Your task to perform on an android device: turn vacation reply on in the gmail app Image 0: 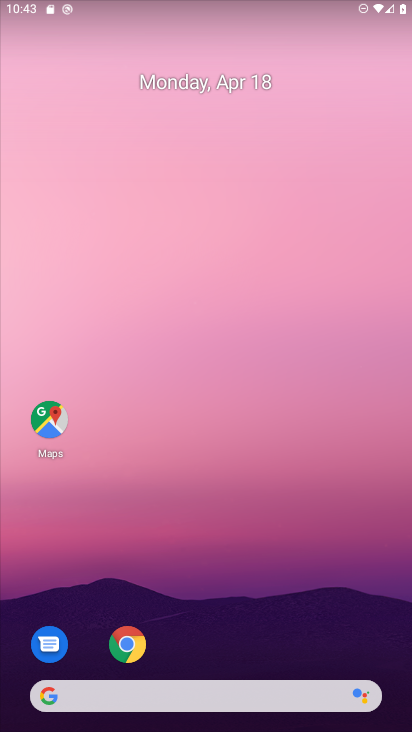
Step 0: drag from (185, 553) to (200, 30)
Your task to perform on an android device: turn vacation reply on in the gmail app Image 1: 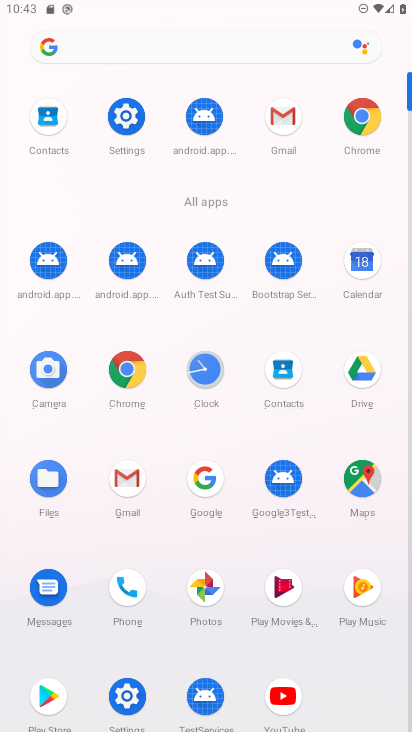
Step 1: click (121, 482)
Your task to perform on an android device: turn vacation reply on in the gmail app Image 2: 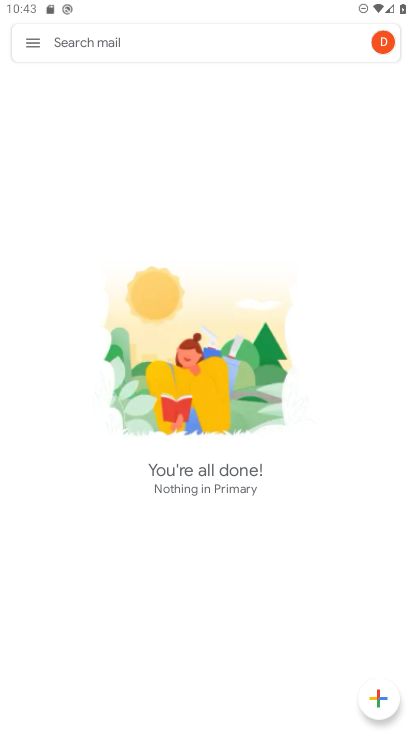
Step 2: click (34, 33)
Your task to perform on an android device: turn vacation reply on in the gmail app Image 3: 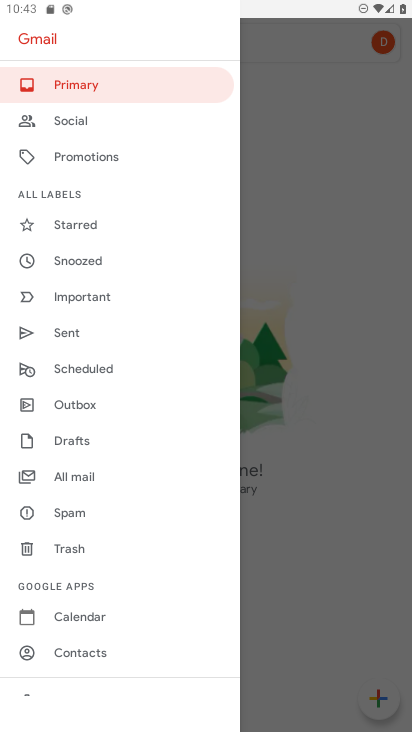
Step 3: drag from (96, 635) to (119, 105)
Your task to perform on an android device: turn vacation reply on in the gmail app Image 4: 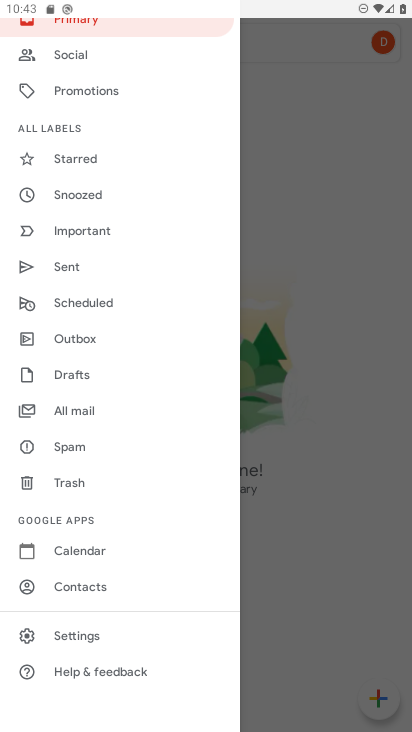
Step 4: click (89, 638)
Your task to perform on an android device: turn vacation reply on in the gmail app Image 5: 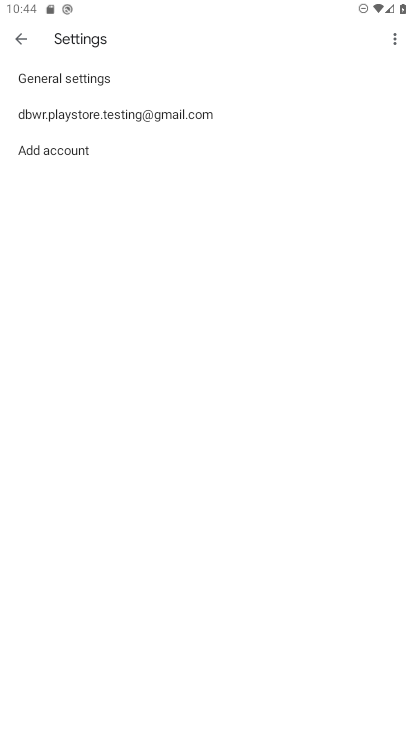
Step 5: click (136, 117)
Your task to perform on an android device: turn vacation reply on in the gmail app Image 6: 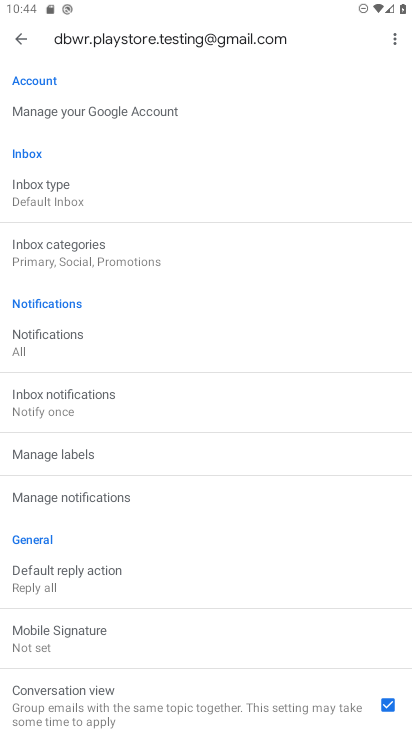
Step 6: drag from (139, 490) to (215, 1)
Your task to perform on an android device: turn vacation reply on in the gmail app Image 7: 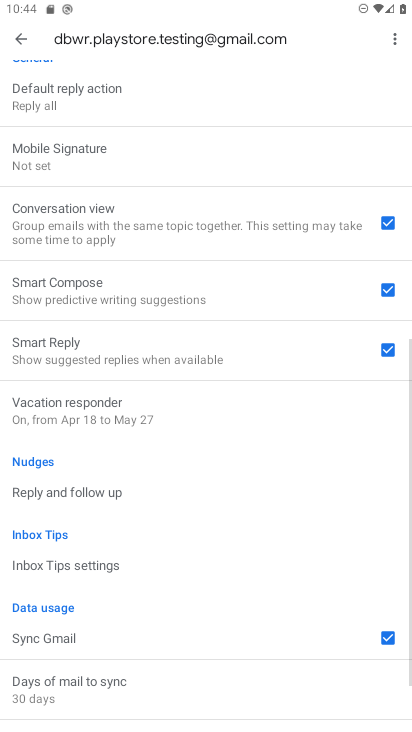
Step 7: click (113, 419)
Your task to perform on an android device: turn vacation reply on in the gmail app Image 8: 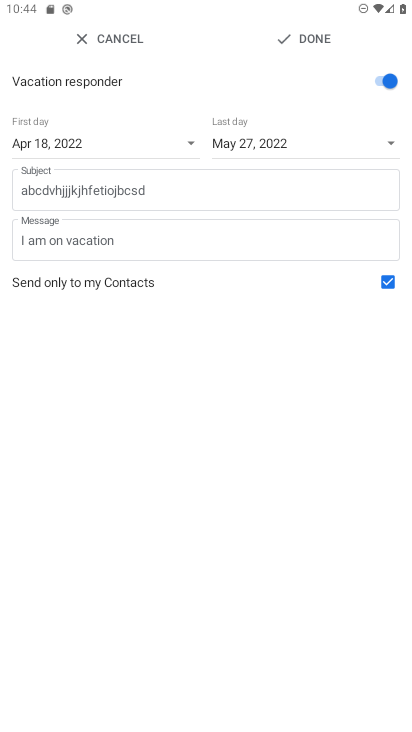
Step 8: task complete